Your task to perform on an android device: Open Amazon Image 0: 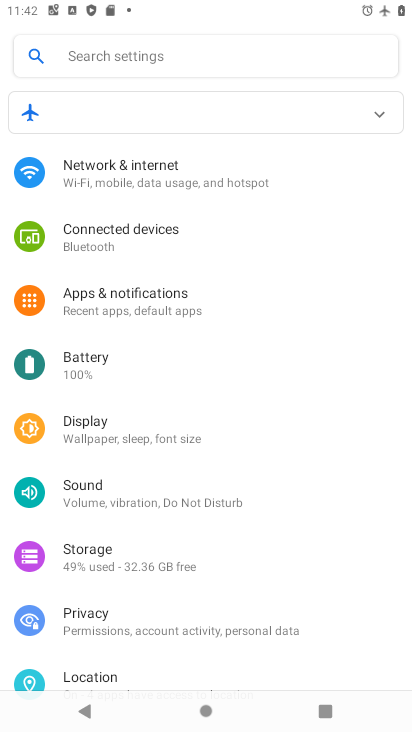
Step 0: press home button
Your task to perform on an android device: Open Amazon Image 1: 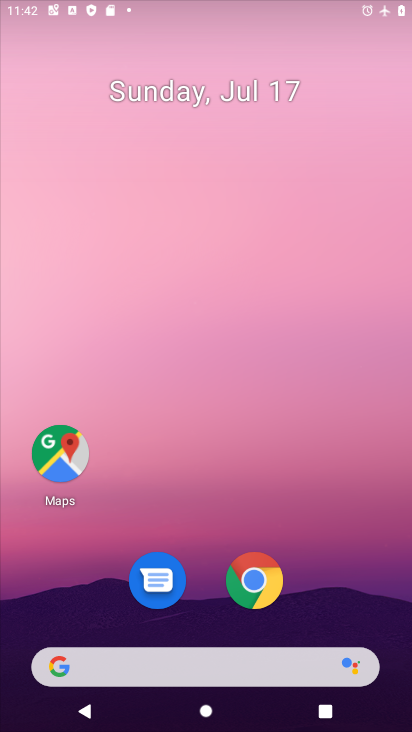
Step 1: drag from (253, 592) to (323, 158)
Your task to perform on an android device: Open Amazon Image 2: 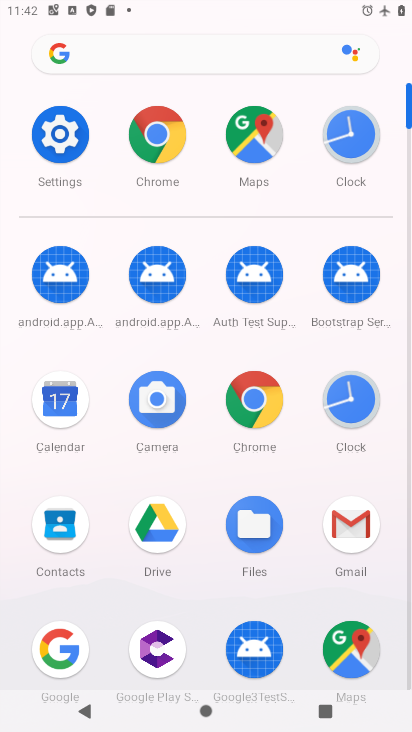
Step 2: click (256, 414)
Your task to perform on an android device: Open Amazon Image 3: 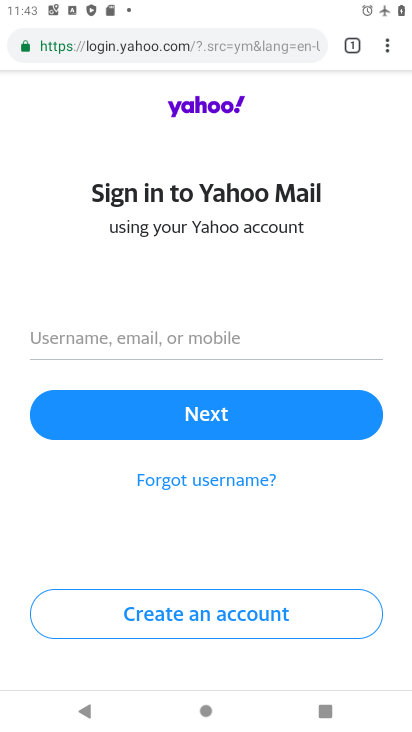
Step 3: click (228, 51)
Your task to perform on an android device: Open Amazon Image 4: 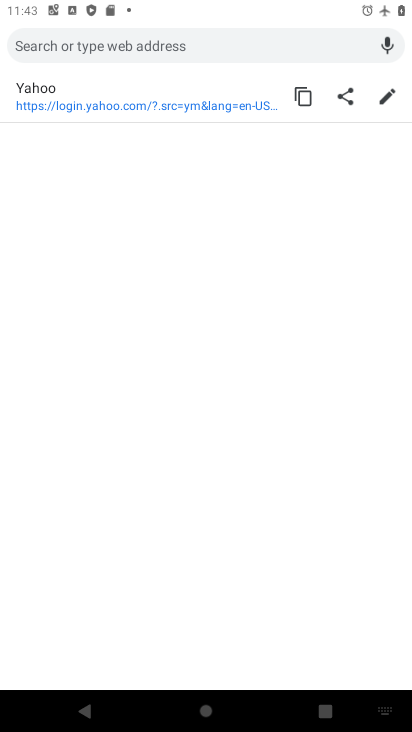
Step 4: click (177, 50)
Your task to perform on an android device: Open Amazon Image 5: 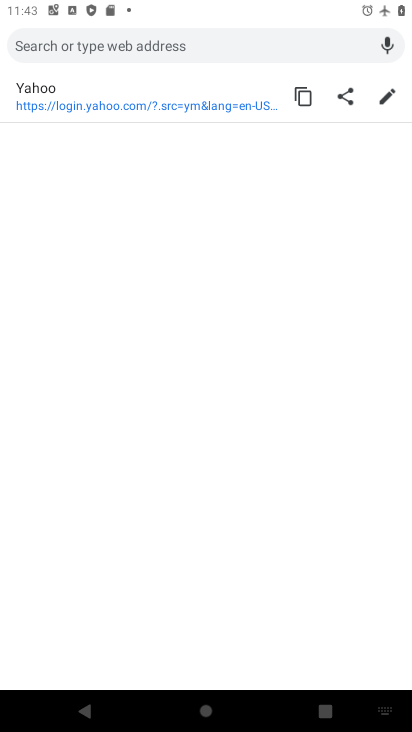
Step 5: type "amazon"
Your task to perform on an android device: Open Amazon Image 6: 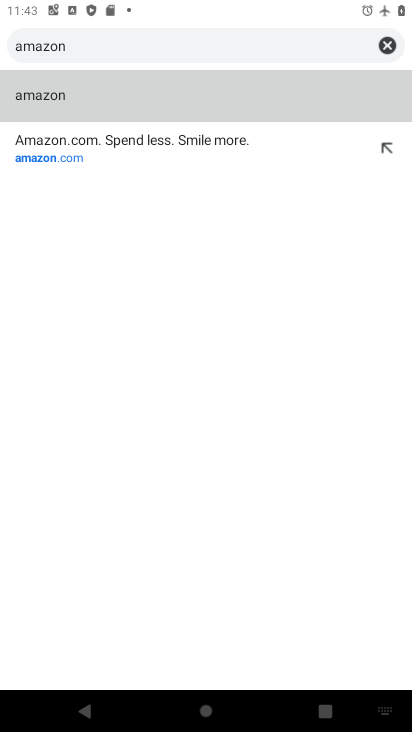
Step 6: click (199, 140)
Your task to perform on an android device: Open Amazon Image 7: 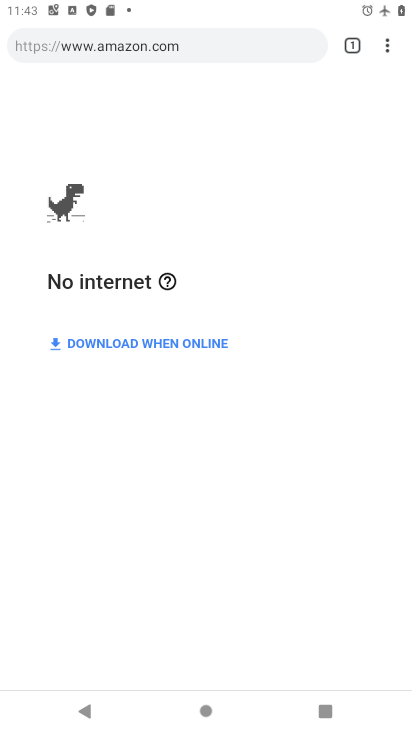
Step 7: task complete